Your task to perform on an android device: turn off airplane mode Image 0: 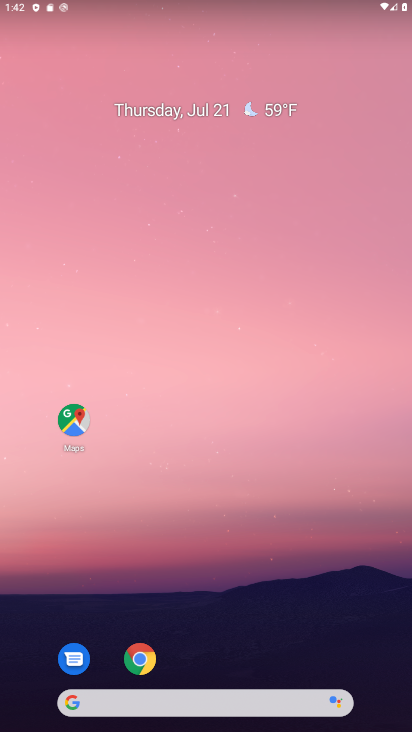
Step 0: drag from (191, 704) to (271, 152)
Your task to perform on an android device: turn off airplane mode Image 1: 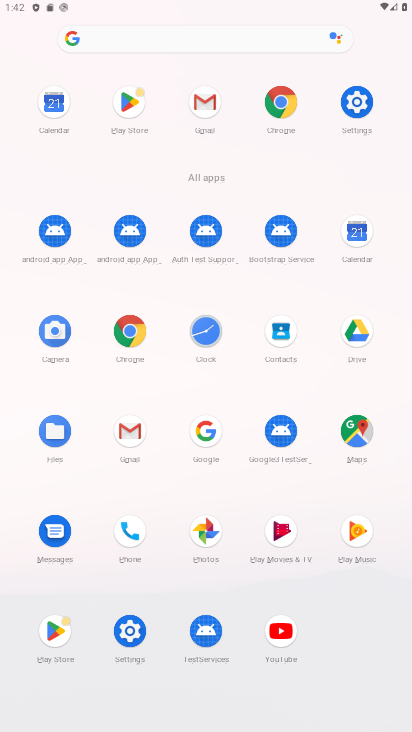
Step 1: click (350, 109)
Your task to perform on an android device: turn off airplane mode Image 2: 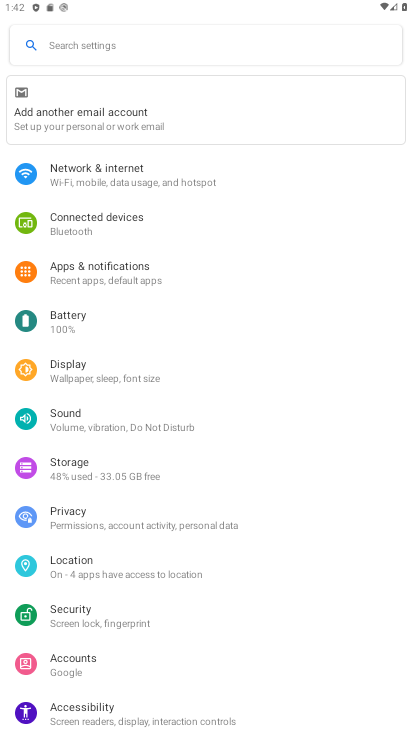
Step 2: click (103, 165)
Your task to perform on an android device: turn off airplane mode Image 3: 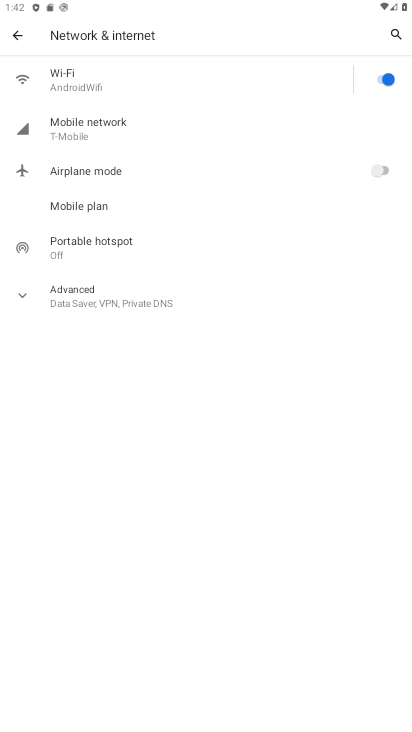
Step 3: task complete